Your task to perform on an android device: Open Google Maps and go to "Timeline" Image 0: 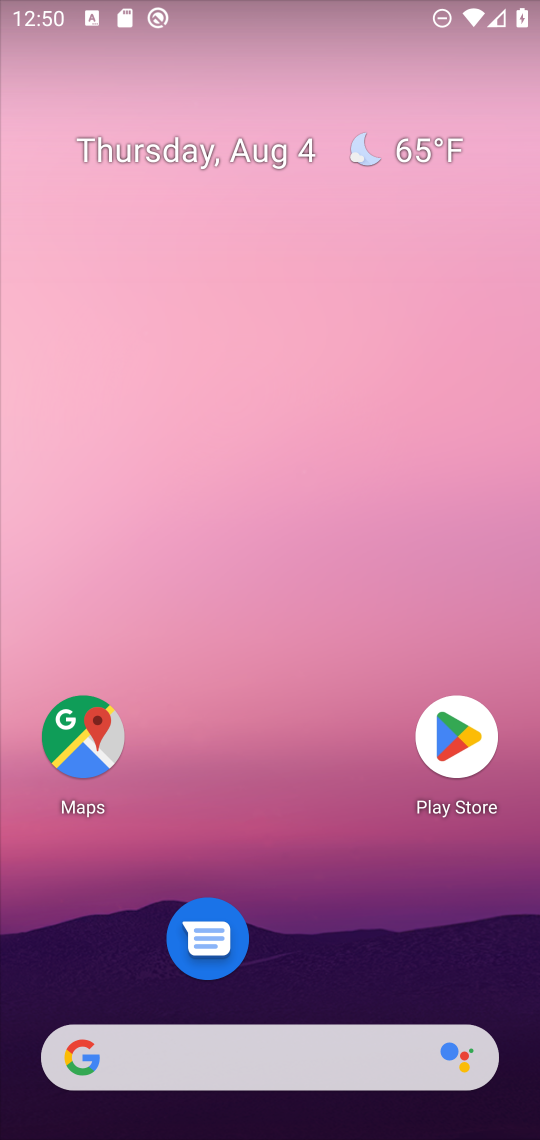
Step 0: drag from (288, 1011) to (325, 24)
Your task to perform on an android device: Open Google Maps and go to "Timeline" Image 1: 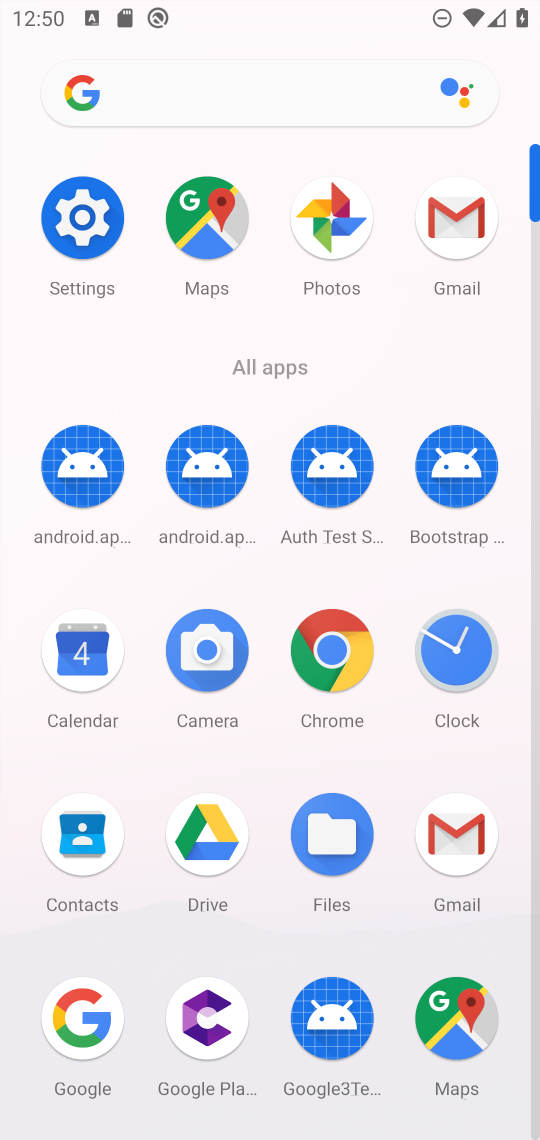
Step 1: click (205, 212)
Your task to perform on an android device: Open Google Maps and go to "Timeline" Image 2: 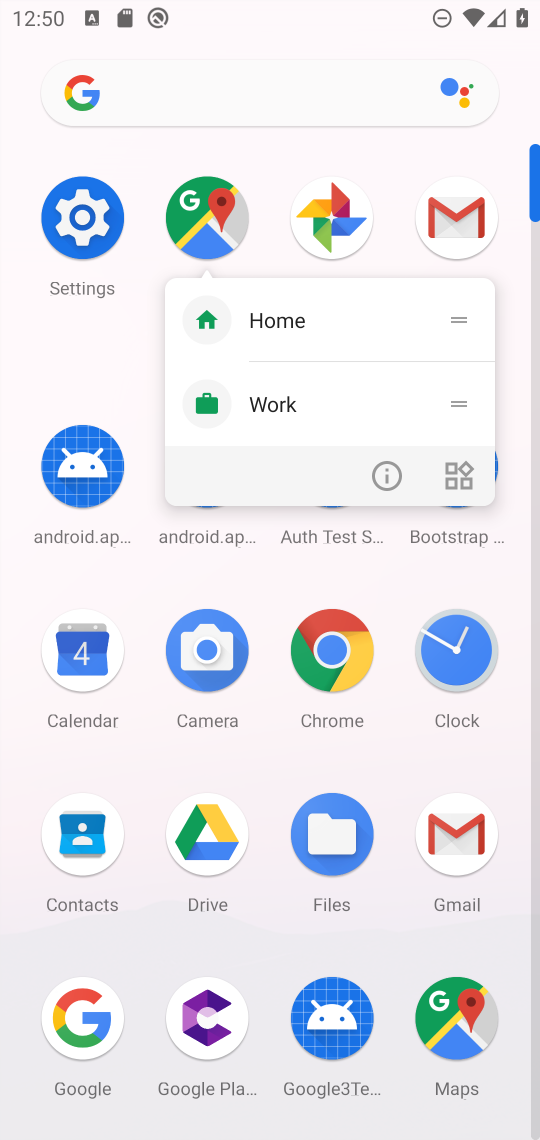
Step 2: click (205, 212)
Your task to perform on an android device: Open Google Maps and go to "Timeline" Image 3: 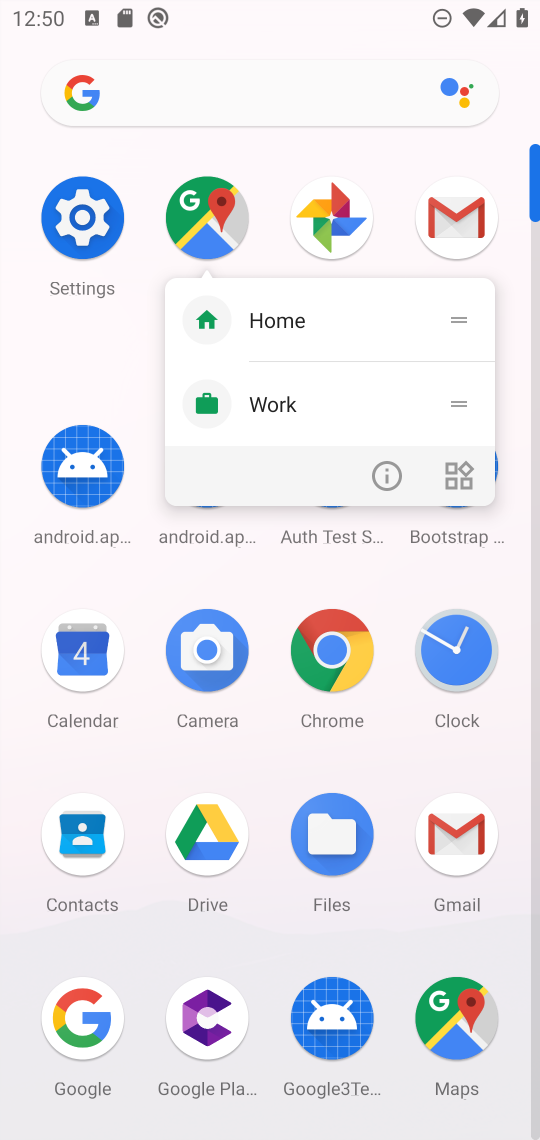
Step 3: click (205, 212)
Your task to perform on an android device: Open Google Maps and go to "Timeline" Image 4: 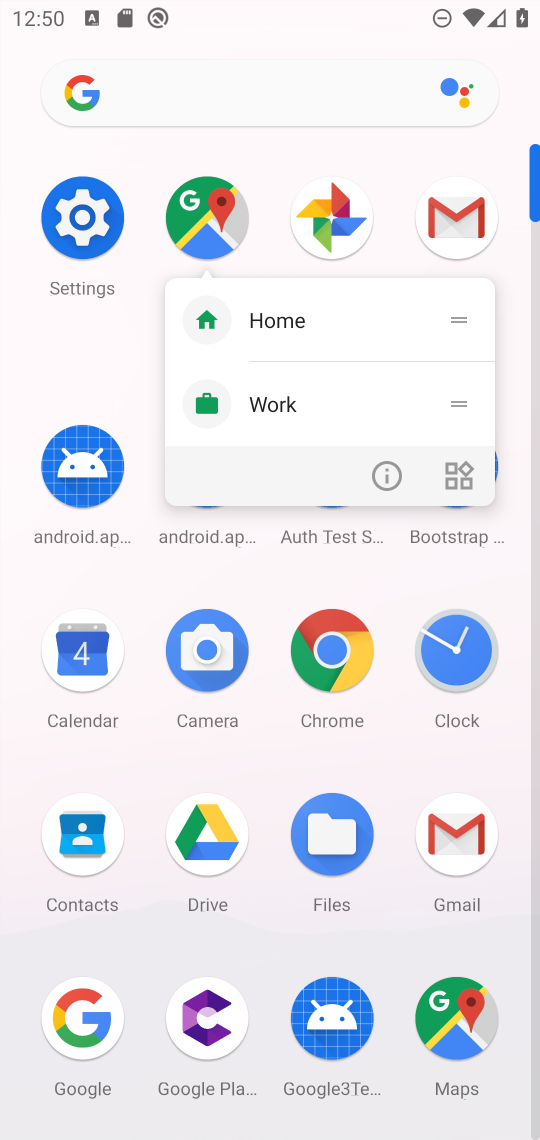
Step 4: click (205, 246)
Your task to perform on an android device: Open Google Maps and go to "Timeline" Image 5: 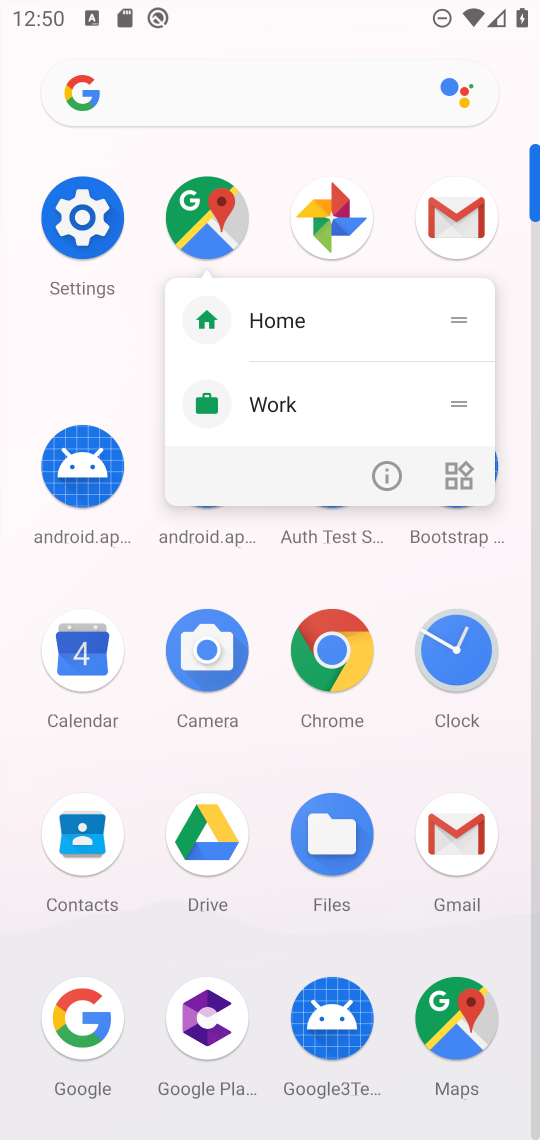
Step 5: click (205, 246)
Your task to perform on an android device: Open Google Maps and go to "Timeline" Image 6: 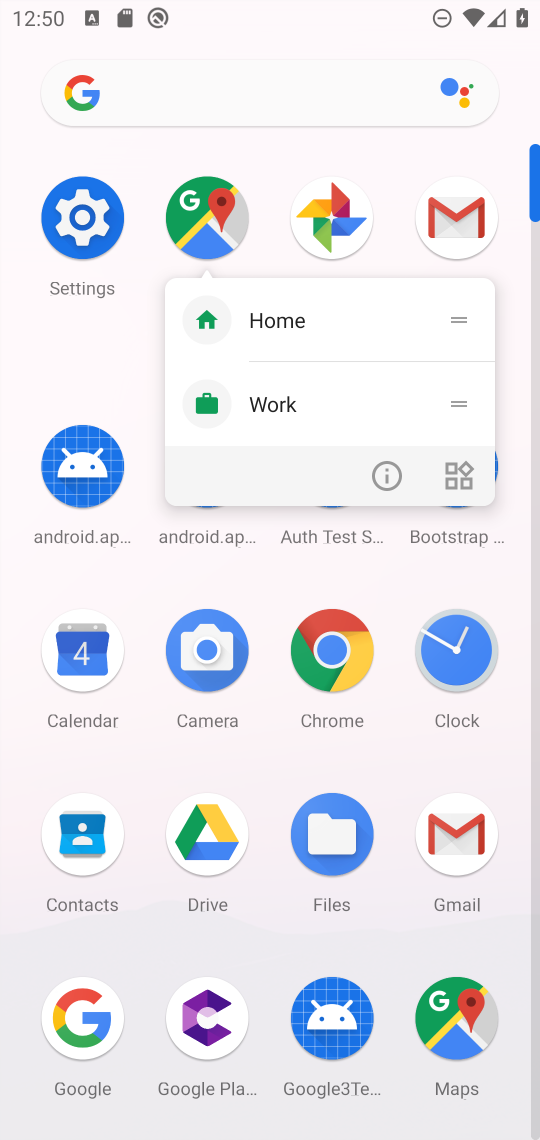
Step 6: click (203, 191)
Your task to perform on an android device: Open Google Maps and go to "Timeline" Image 7: 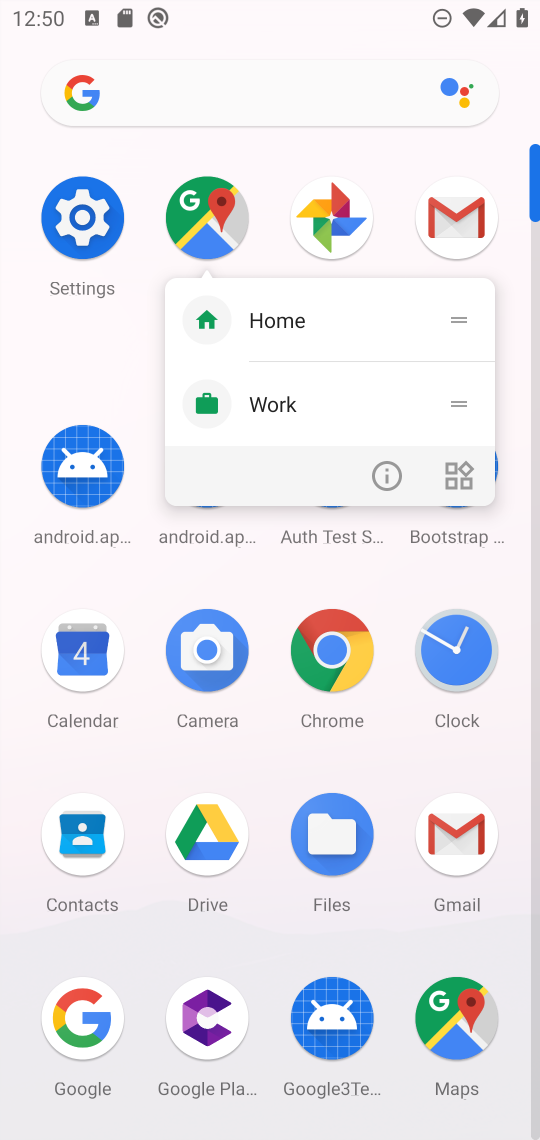
Step 7: click (209, 206)
Your task to perform on an android device: Open Google Maps and go to "Timeline" Image 8: 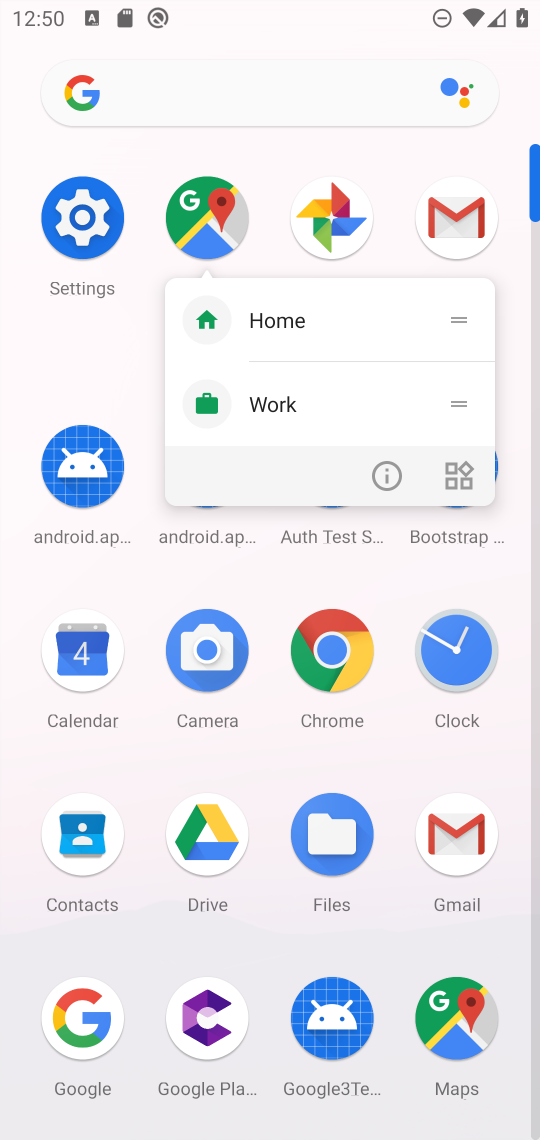
Step 8: click (209, 206)
Your task to perform on an android device: Open Google Maps and go to "Timeline" Image 9: 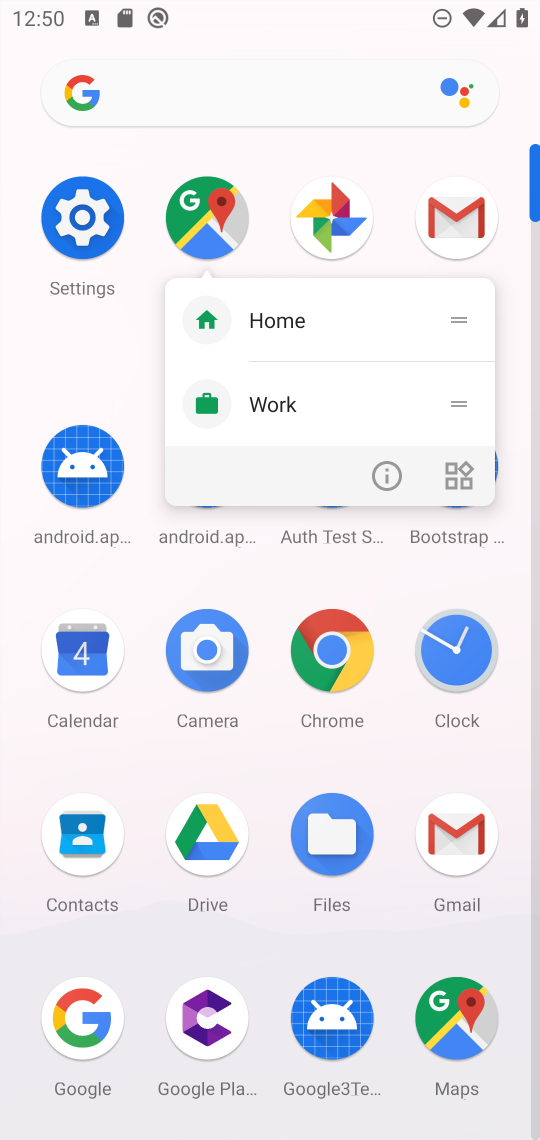
Step 9: click (209, 206)
Your task to perform on an android device: Open Google Maps and go to "Timeline" Image 10: 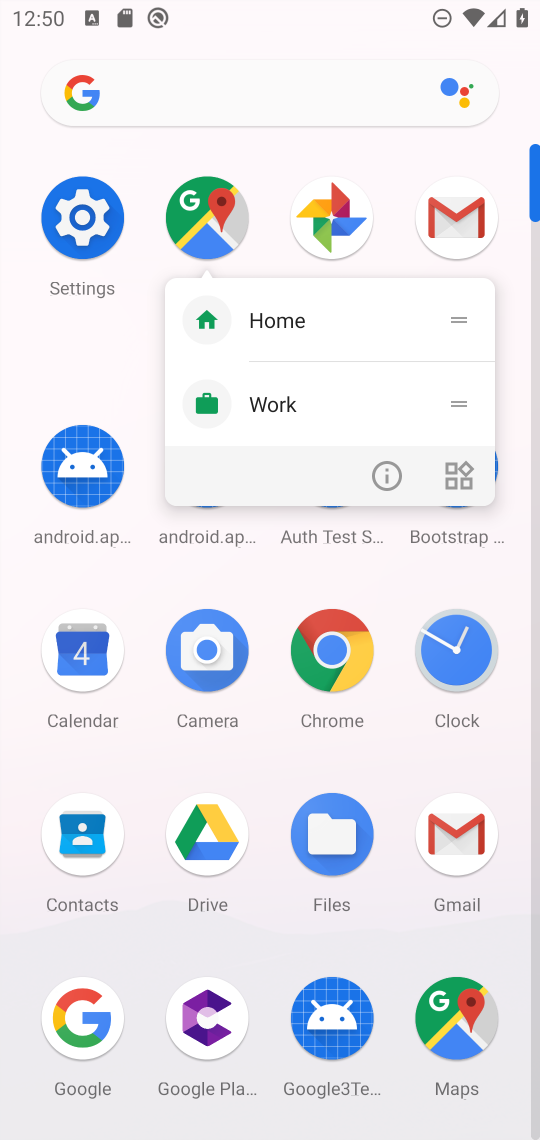
Step 10: click (209, 206)
Your task to perform on an android device: Open Google Maps and go to "Timeline" Image 11: 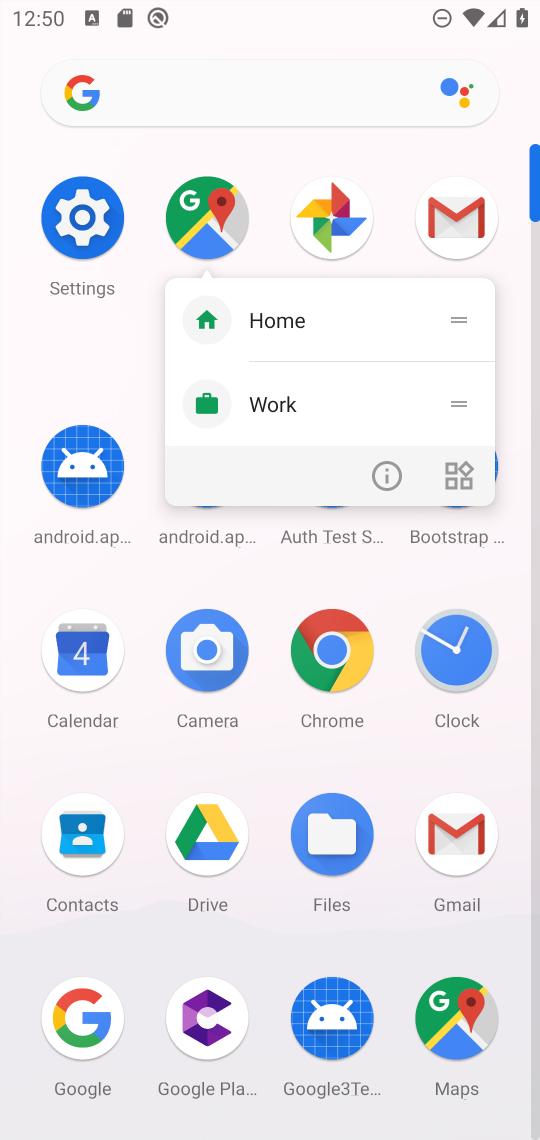
Step 11: click (209, 206)
Your task to perform on an android device: Open Google Maps and go to "Timeline" Image 12: 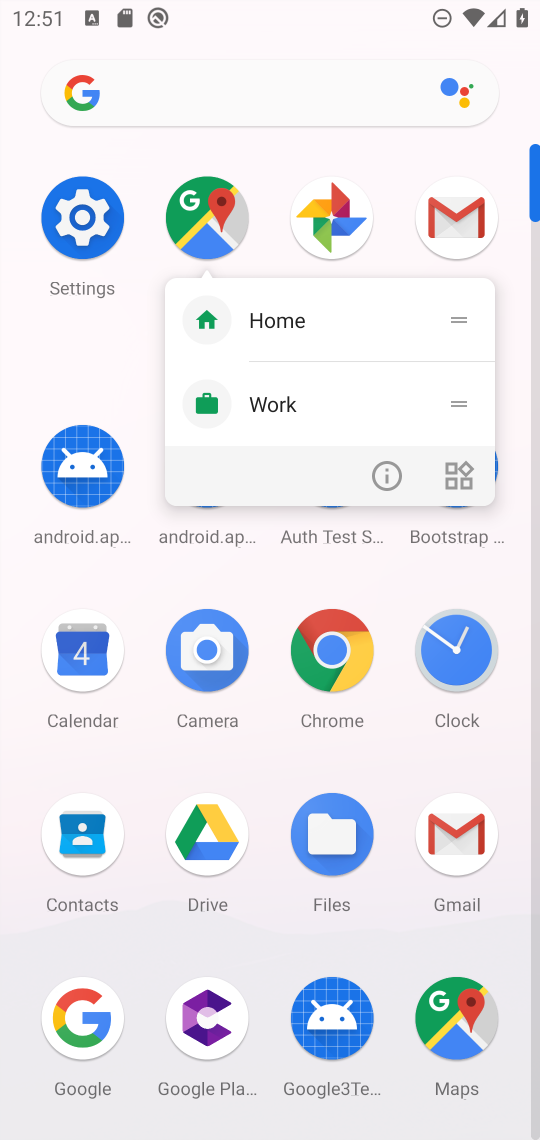
Step 12: click (227, 176)
Your task to perform on an android device: Open Google Maps and go to "Timeline" Image 13: 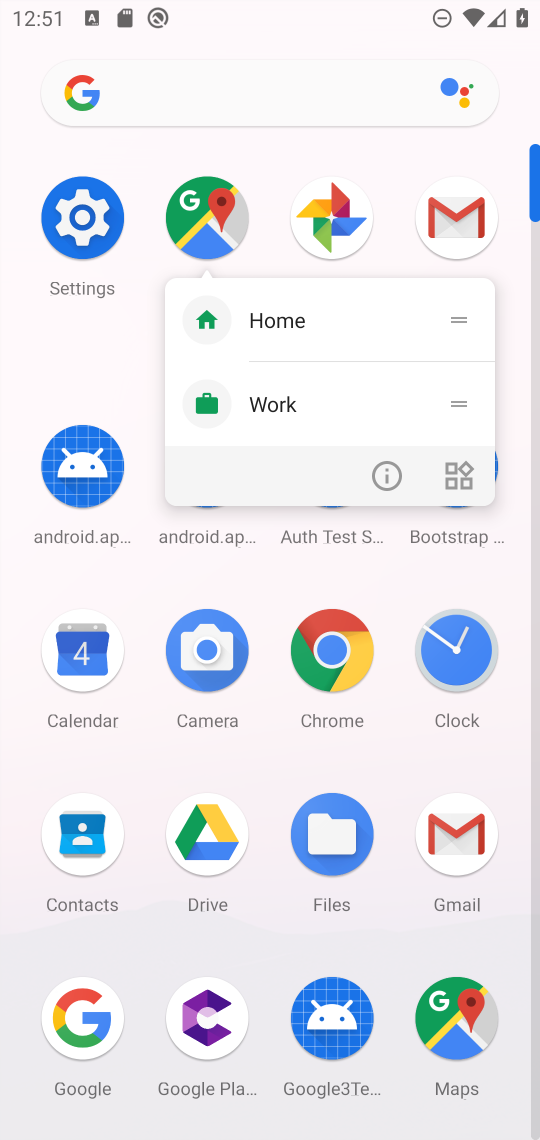
Step 13: click (205, 203)
Your task to perform on an android device: Open Google Maps and go to "Timeline" Image 14: 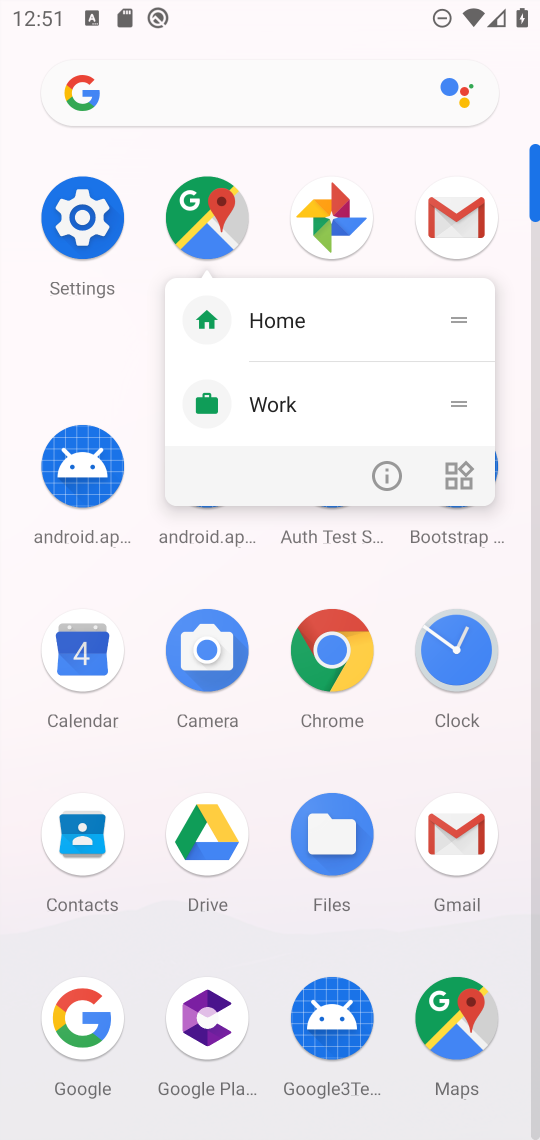
Step 14: click (205, 203)
Your task to perform on an android device: Open Google Maps and go to "Timeline" Image 15: 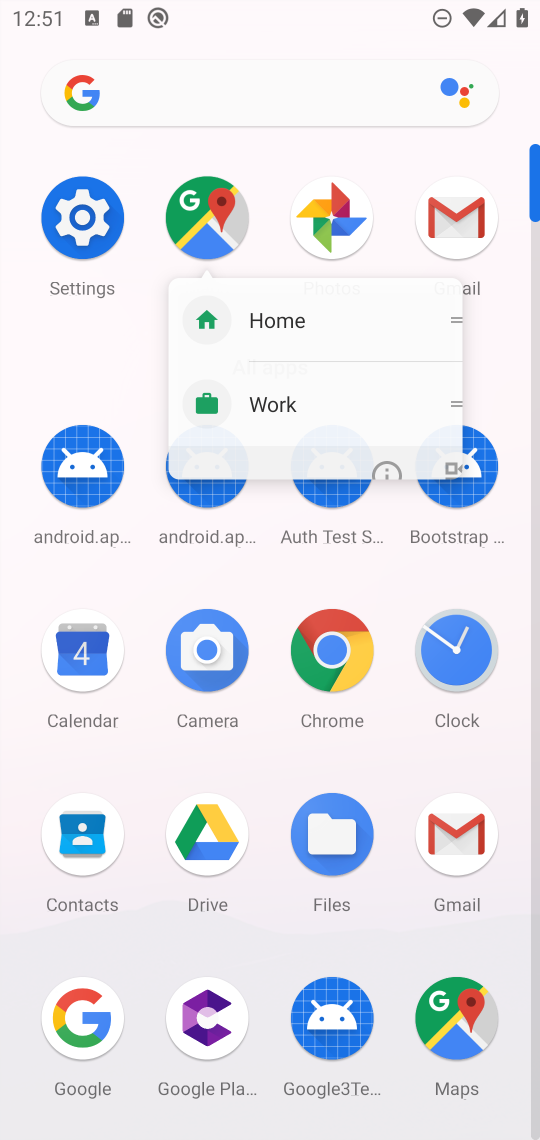
Step 15: click (205, 203)
Your task to perform on an android device: Open Google Maps and go to "Timeline" Image 16: 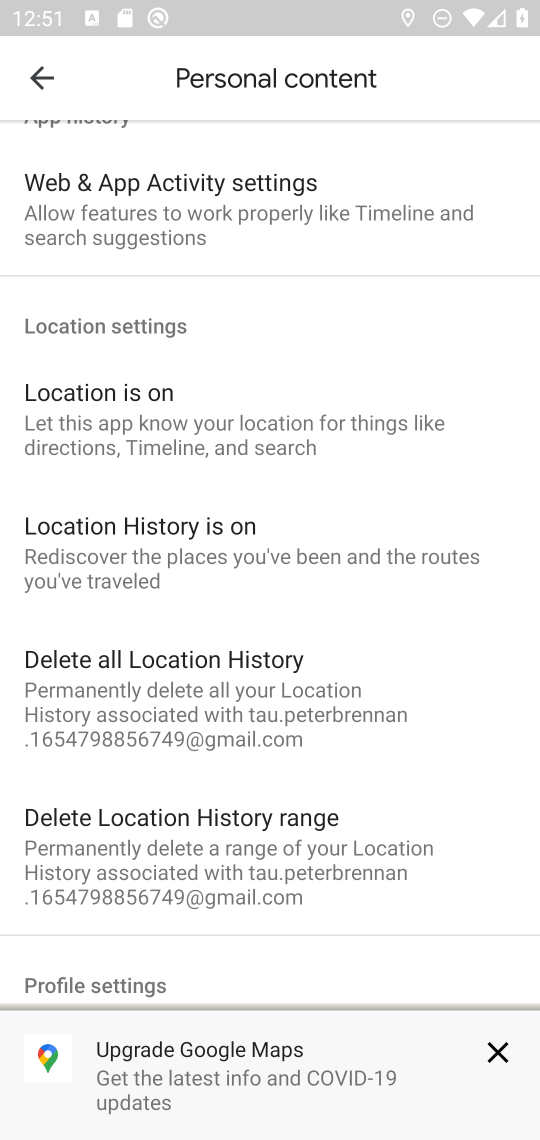
Step 16: drag from (248, 264) to (127, 1100)
Your task to perform on an android device: Open Google Maps and go to "Timeline" Image 17: 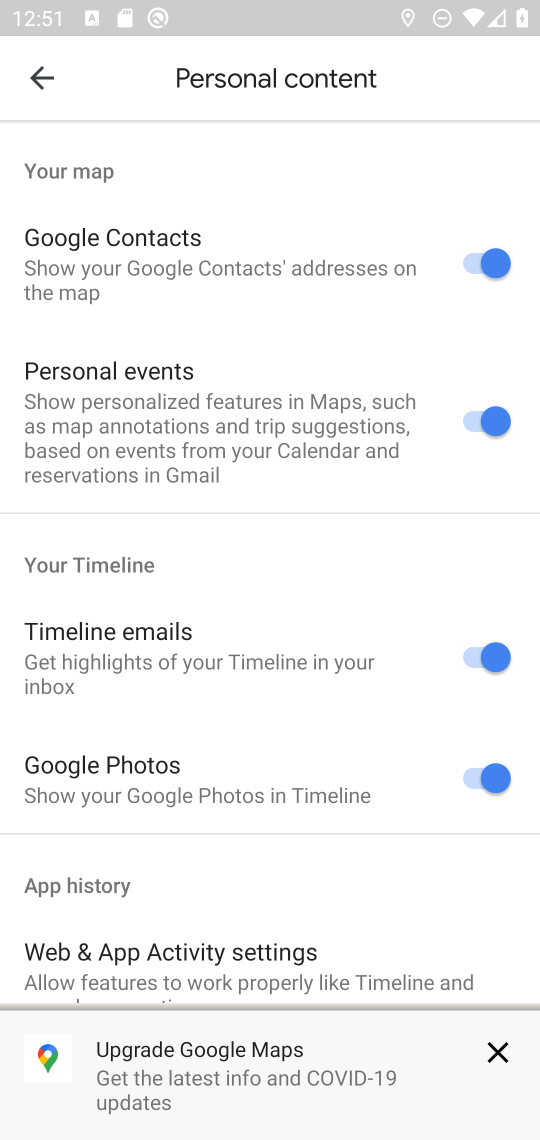
Step 17: drag from (318, 259) to (212, 1120)
Your task to perform on an android device: Open Google Maps and go to "Timeline" Image 18: 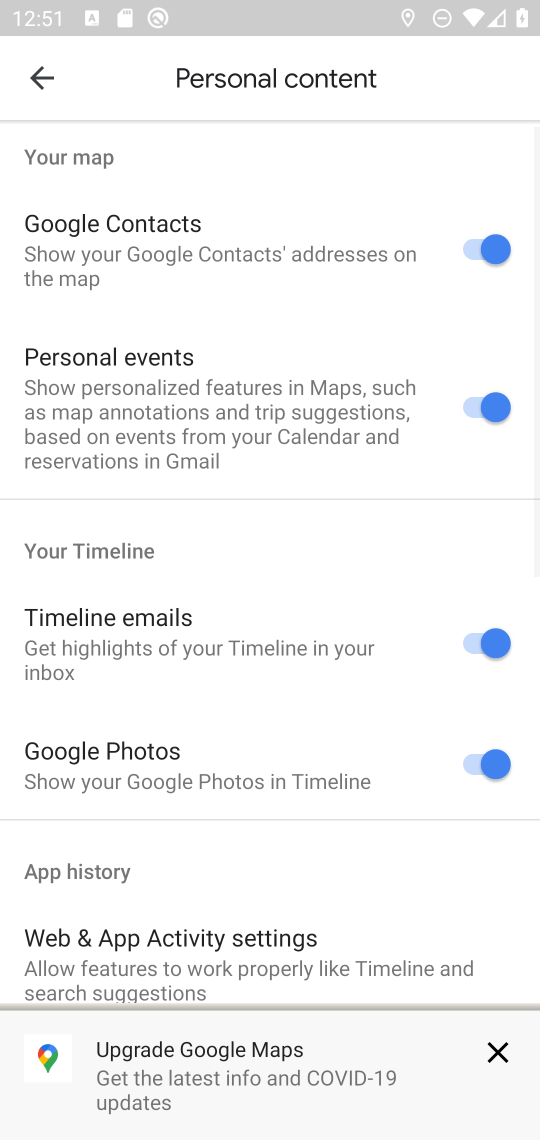
Step 18: click (59, 64)
Your task to perform on an android device: Open Google Maps and go to "Timeline" Image 19: 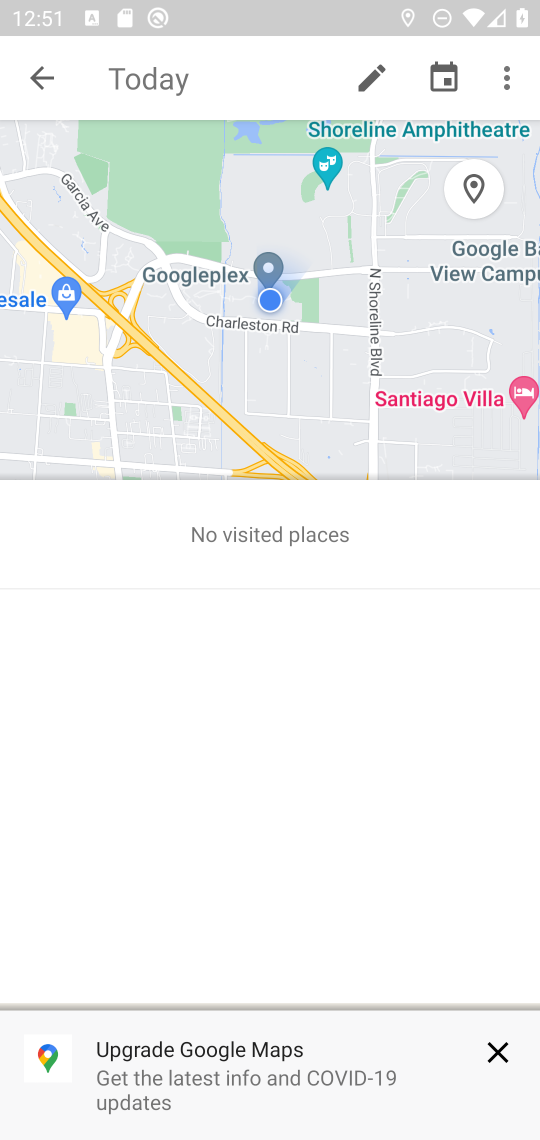
Step 19: task complete